Your task to perform on an android device: Go to Wikipedia Image 0: 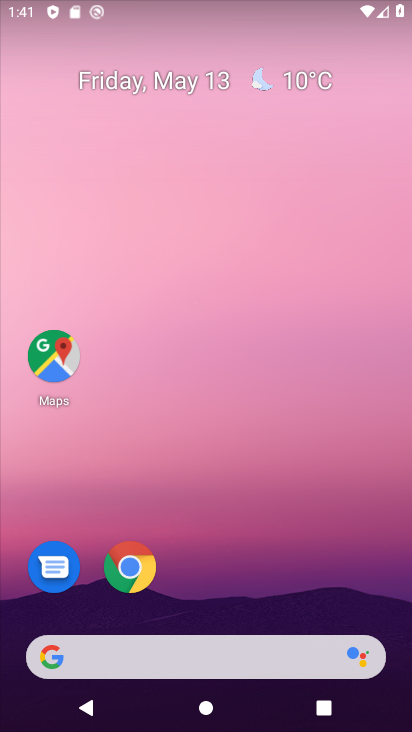
Step 0: click (127, 575)
Your task to perform on an android device: Go to Wikipedia Image 1: 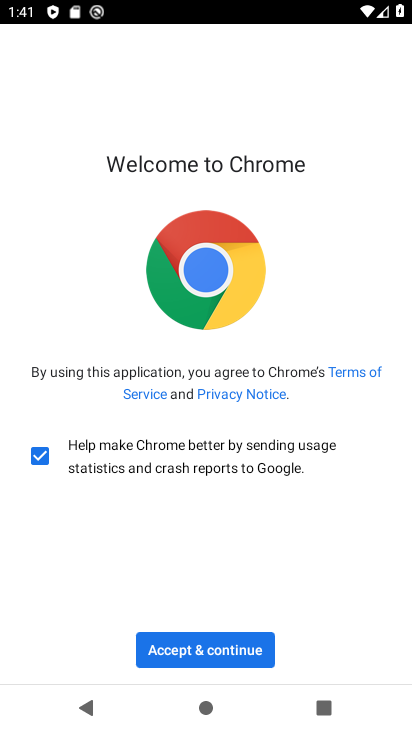
Step 1: click (235, 635)
Your task to perform on an android device: Go to Wikipedia Image 2: 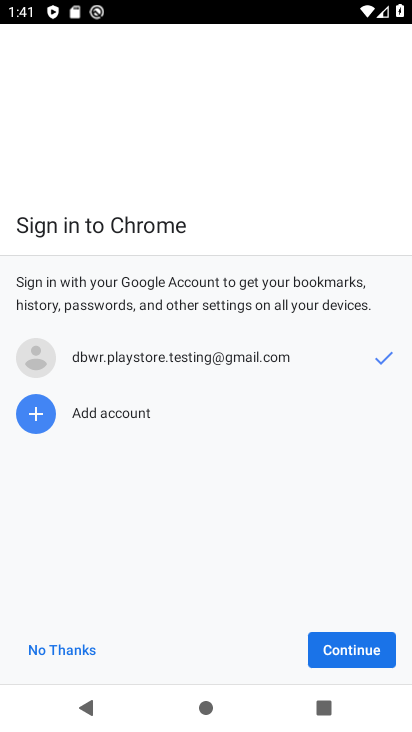
Step 2: click (354, 655)
Your task to perform on an android device: Go to Wikipedia Image 3: 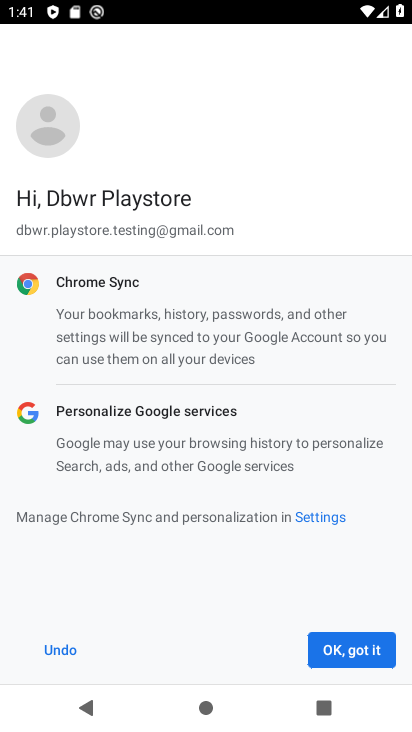
Step 3: click (351, 656)
Your task to perform on an android device: Go to Wikipedia Image 4: 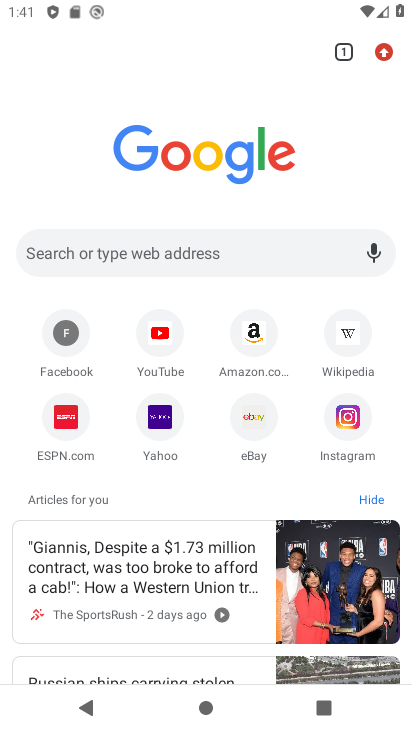
Step 4: click (355, 350)
Your task to perform on an android device: Go to Wikipedia Image 5: 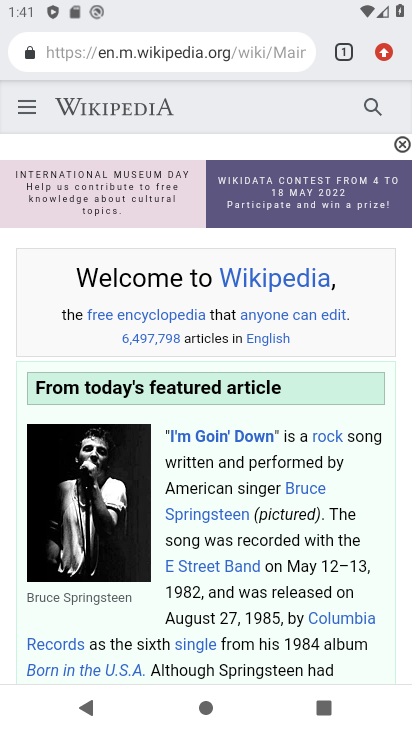
Step 5: task complete